Your task to perform on an android device: Go to calendar. Show me events next week Image 0: 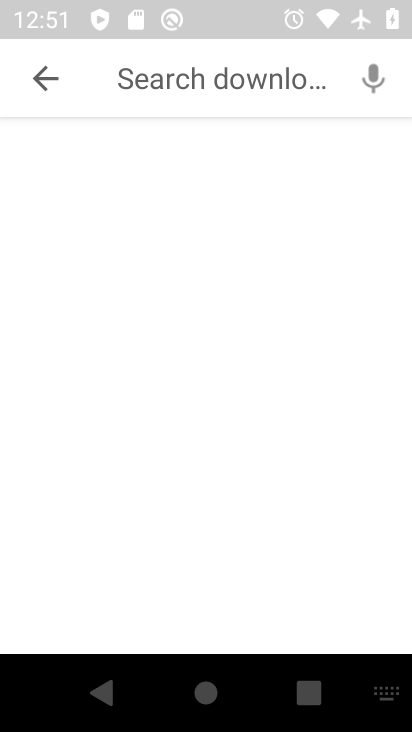
Step 0: press home button
Your task to perform on an android device: Go to calendar. Show me events next week Image 1: 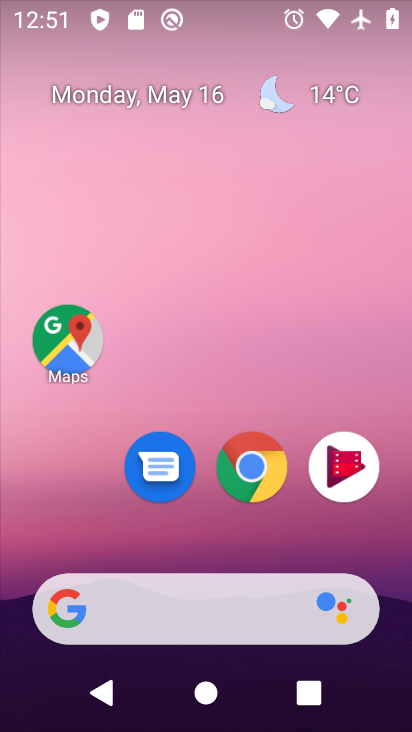
Step 1: drag from (208, 416) to (191, 137)
Your task to perform on an android device: Go to calendar. Show me events next week Image 2: 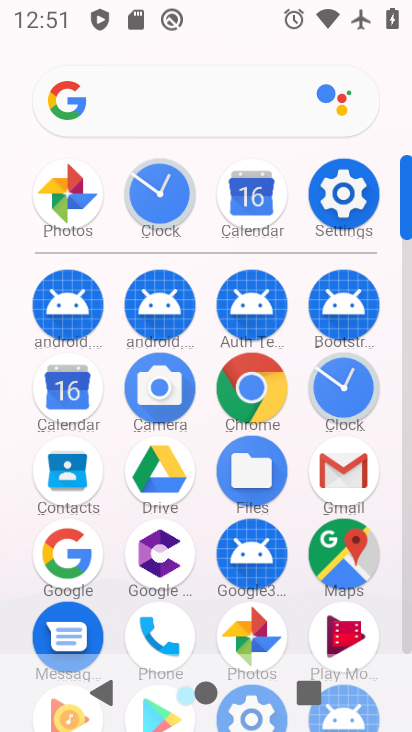
Step 2: click (64, 389)
Your task to perform on an android device: Go to calendar. Show me events next week Image 3: 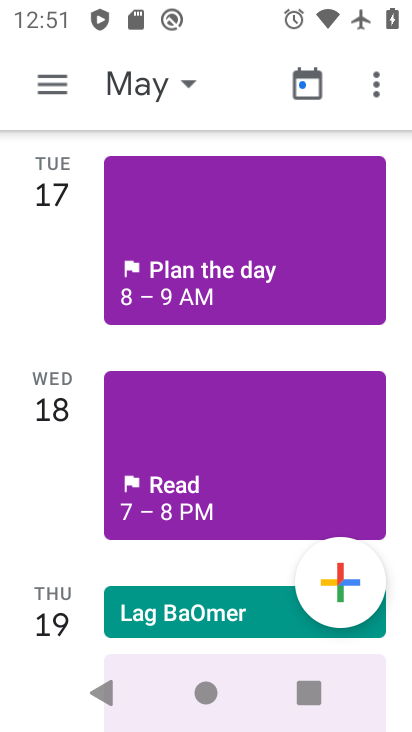
Step 3: click (41, 77)
Your task to perform on an android device: Go to calendar. Show me events next week Image 4: 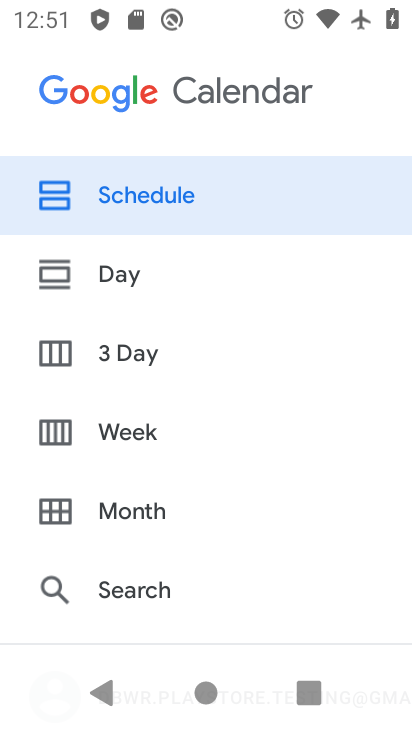
Step 4: click (131, 493)
Your task to perform on an android device: Go to calendar. Show me events next week Image 5: 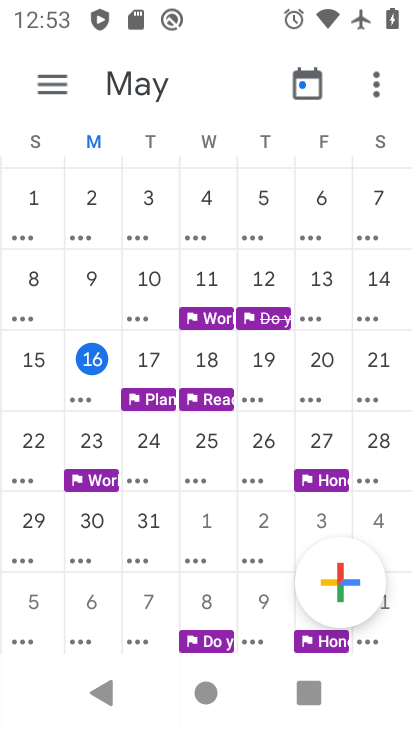
Step 5: task complete